Your task to perform on an android device: set the timer Image 0: 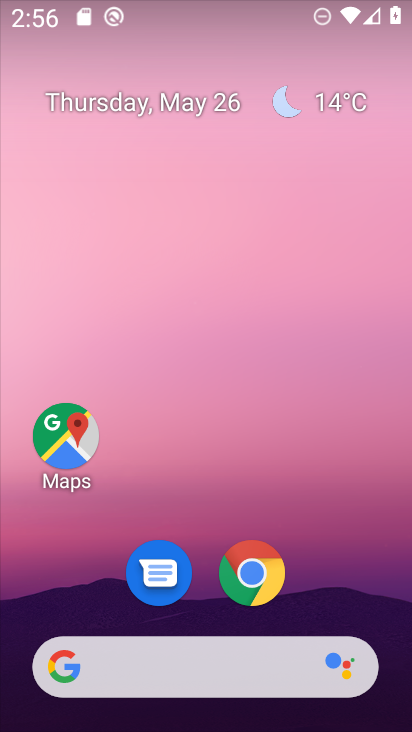
Step 0: drag from (317, 559) to (261, 29)
Your task to perform on an android device: set the timer Image 1: 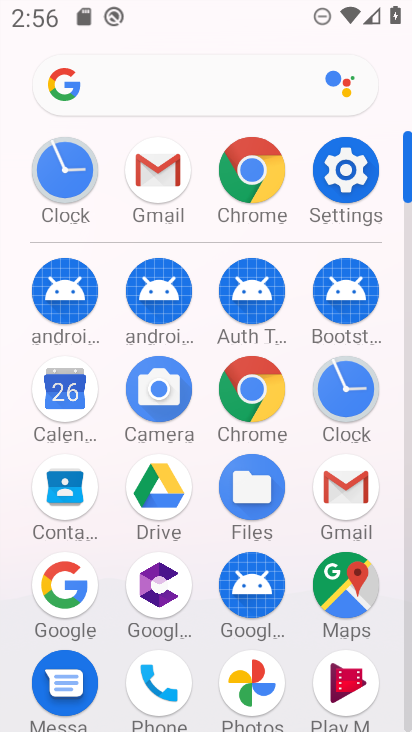
Step 1: click (341, 385)
Your task to perform on an android device: set the timer Image 2: 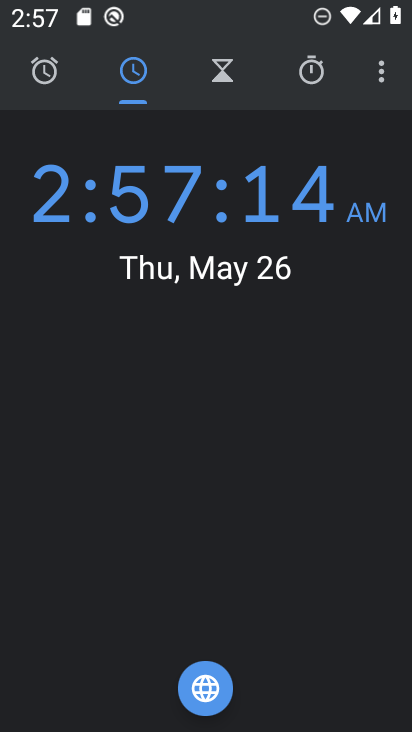
Step 2: click (380, 81)
Your task to perform on an android device: set the timer Image 3: 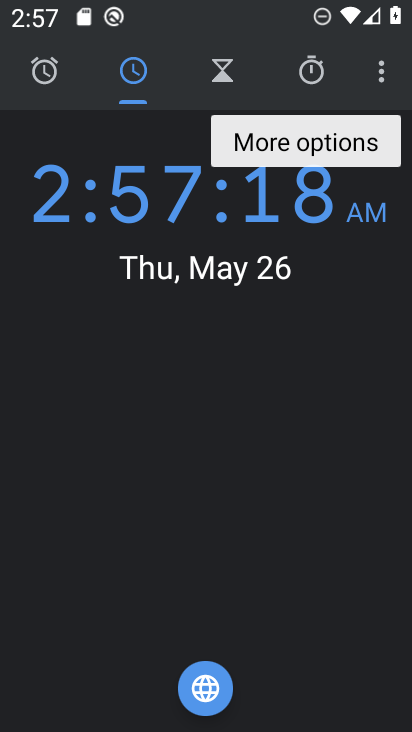
Step 3: click (222, 70)
Your task to perform on an android device: set the timer Image 4: 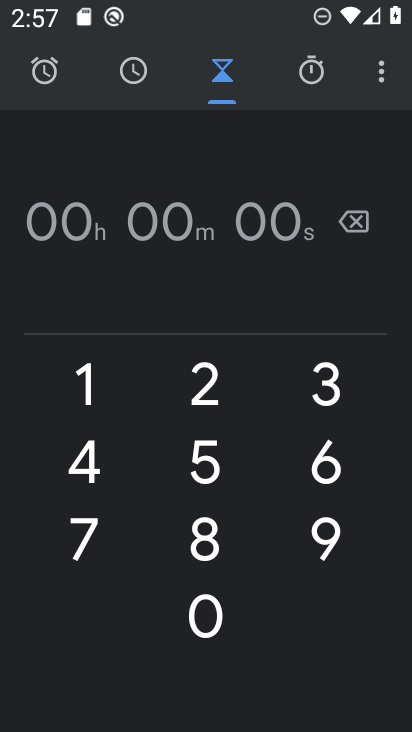
Step 4: click (206, 375)
Your task to perform on an android device: set the timer Image 5: 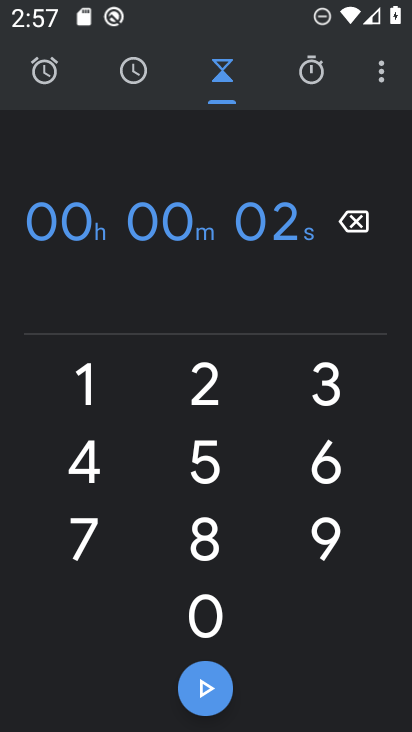
Step 5: click (322, 390)
Your task to perform on an android device: set the timer Image 6: 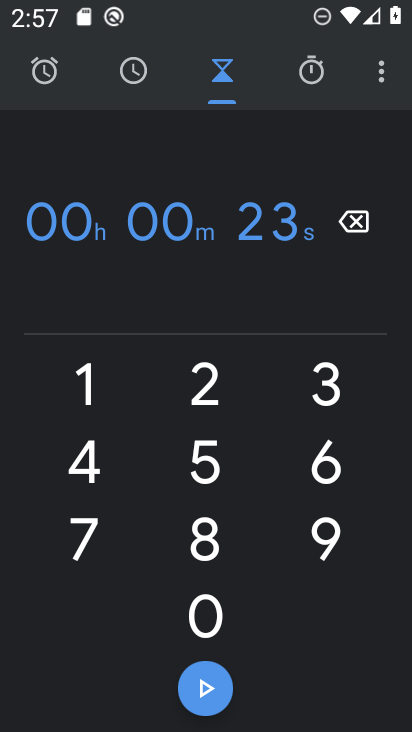
Step 6: click (326, 461)
Your task to perform on an android device: set the timer Image 7: 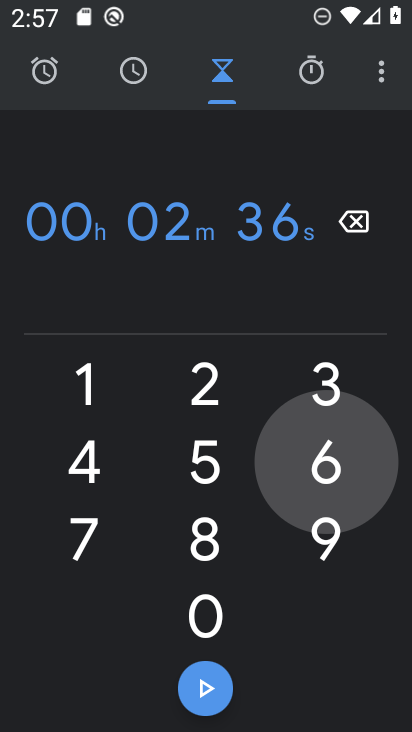
Step 7: click (203, 444)
Your task to perform on an android device: set the timer Image 8: 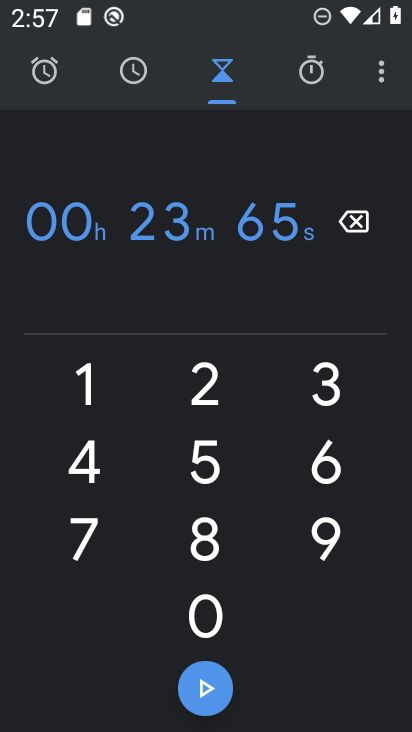
Step 8: click (195, 688)
Your task to perform on an android device: set the timer Image 9: 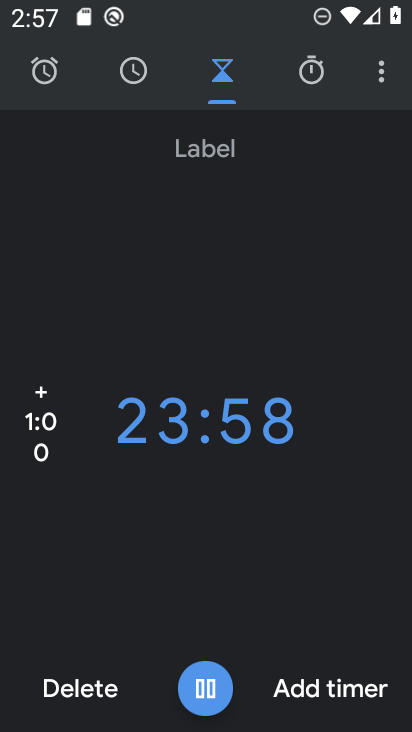
Step 9: task complete